Your task to perform on an android device: Open privacy settings Image 0: 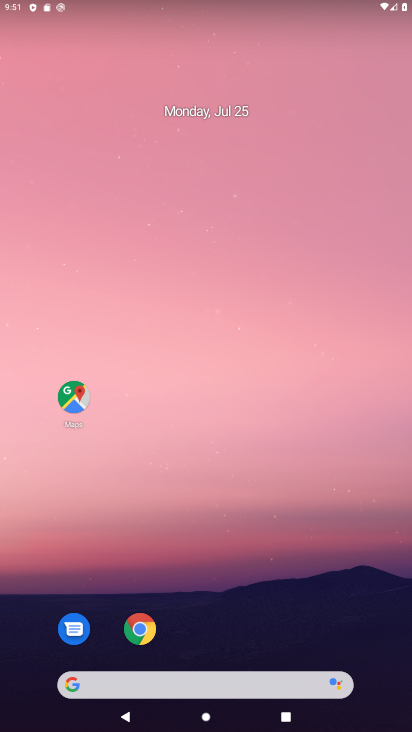
Step 0: drag from (224, 590) to (214, 95)
Your task to perform on an android device: Open privacy settings Image 1: 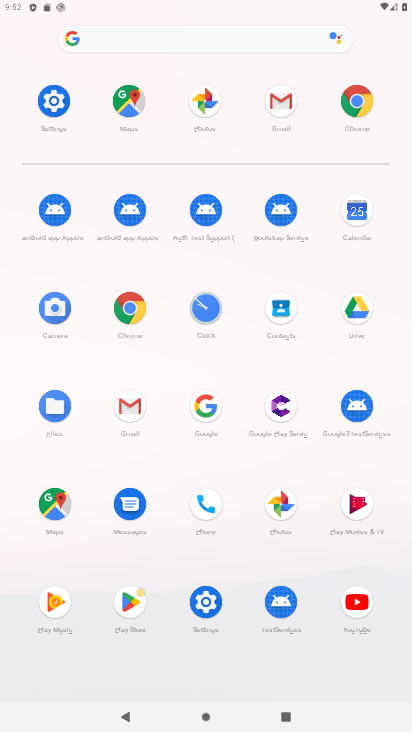
Step 1: click (55, 99)
Your task to perform on an android device: Open privacy settings Image 2: 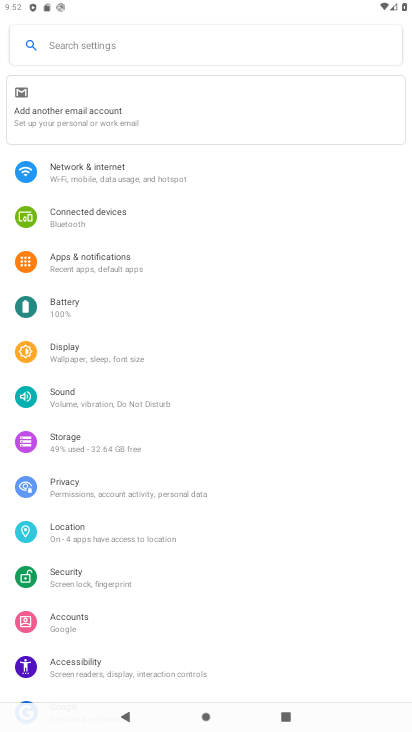
Step 2: click (99, 493)
Your task to perform on an android device: Open privacy settings Image 3: 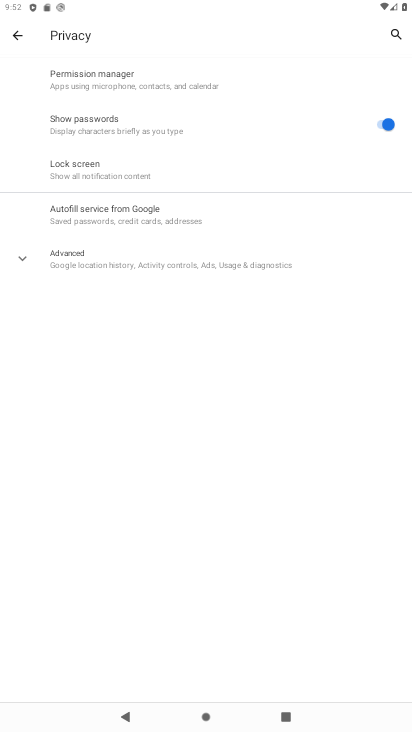
Step 3: task complete